Your task to perform on an android device: Search for "sony triple a" on ebay.com, select the first entry, and add it to the cart. Image 0: 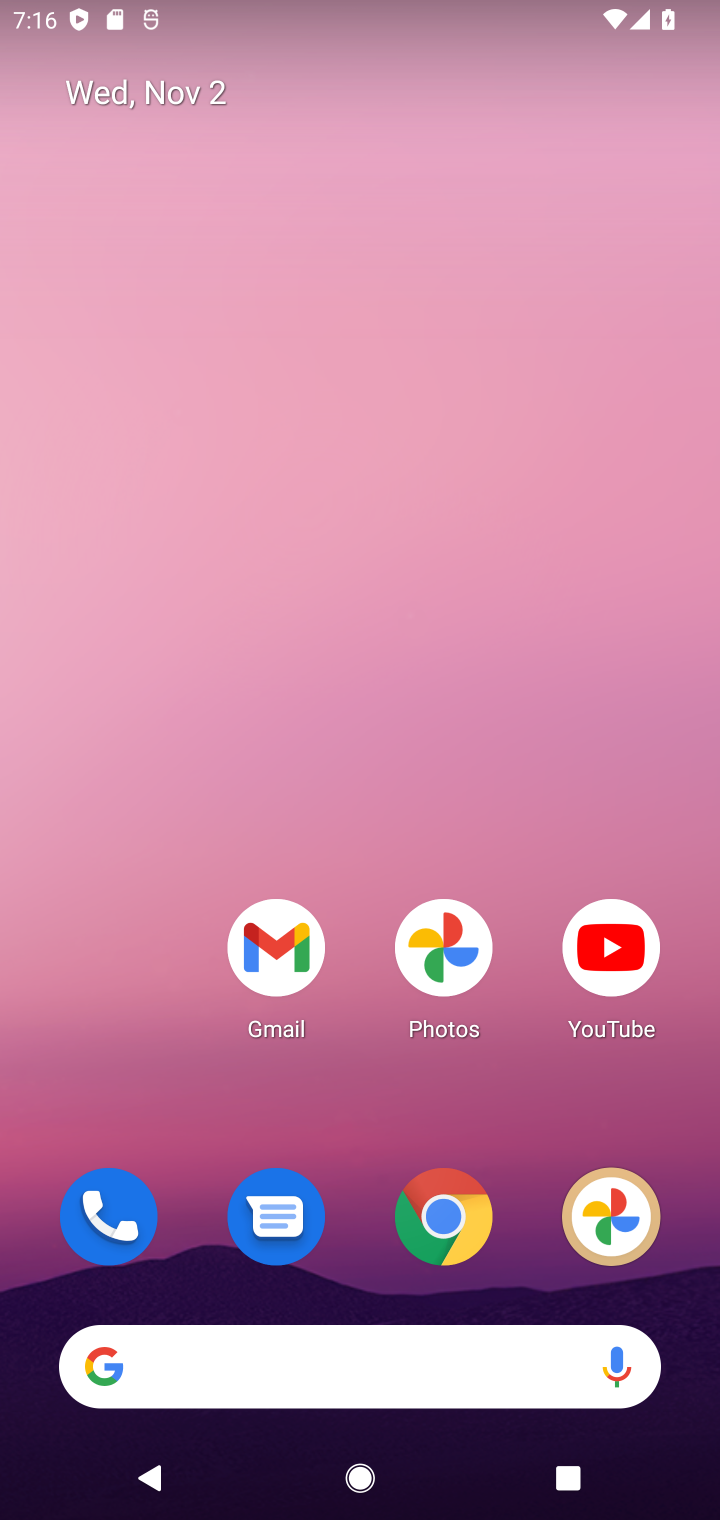
Step 0: click (440, 1249)
Your task to perform on an android device: Search for "sony triple a" on ebay.com, select the first entry, and add it to the cart. Image 1: 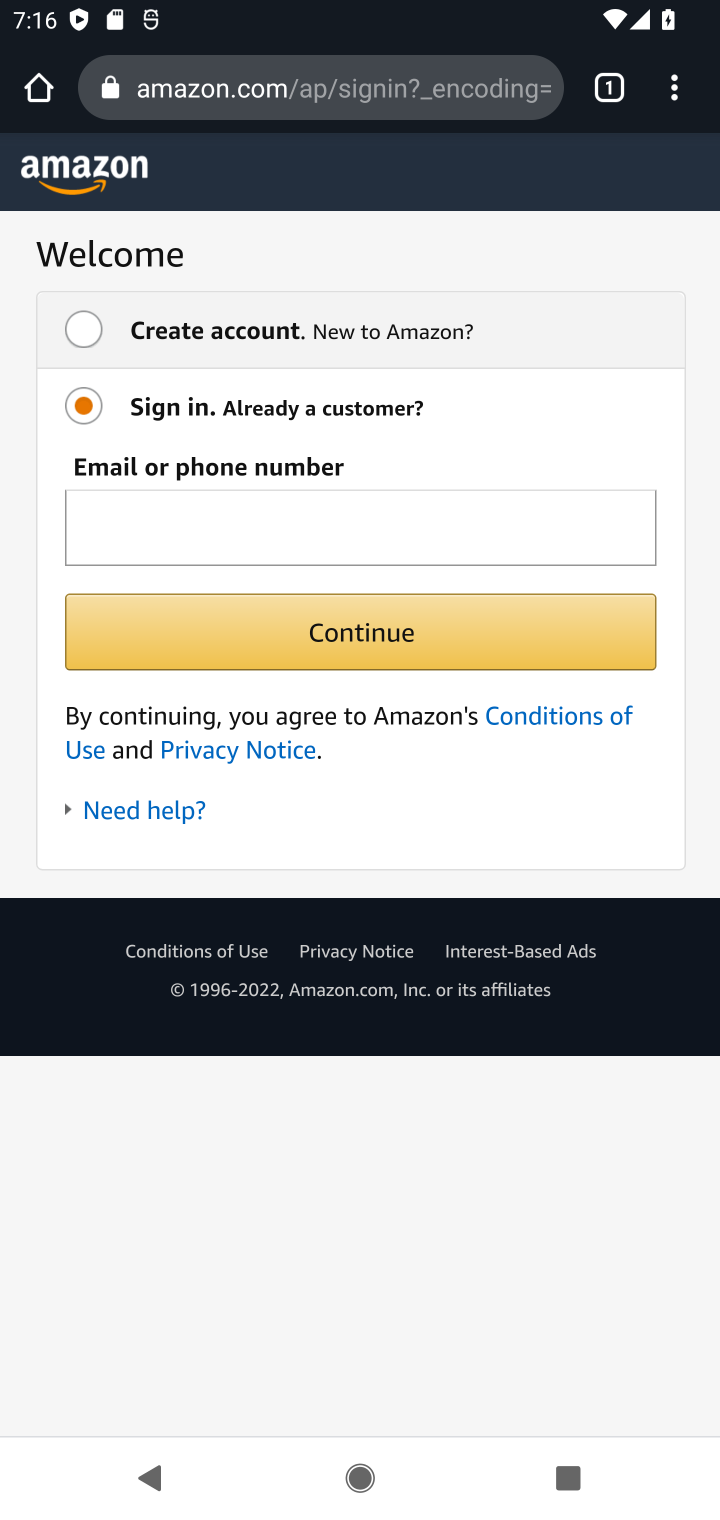
Step 1: click (328, 96)
Your task to perform on an android device: Search for "sony triple a" on ebay.com, select the first entry, and add it to the cart. Image 2: 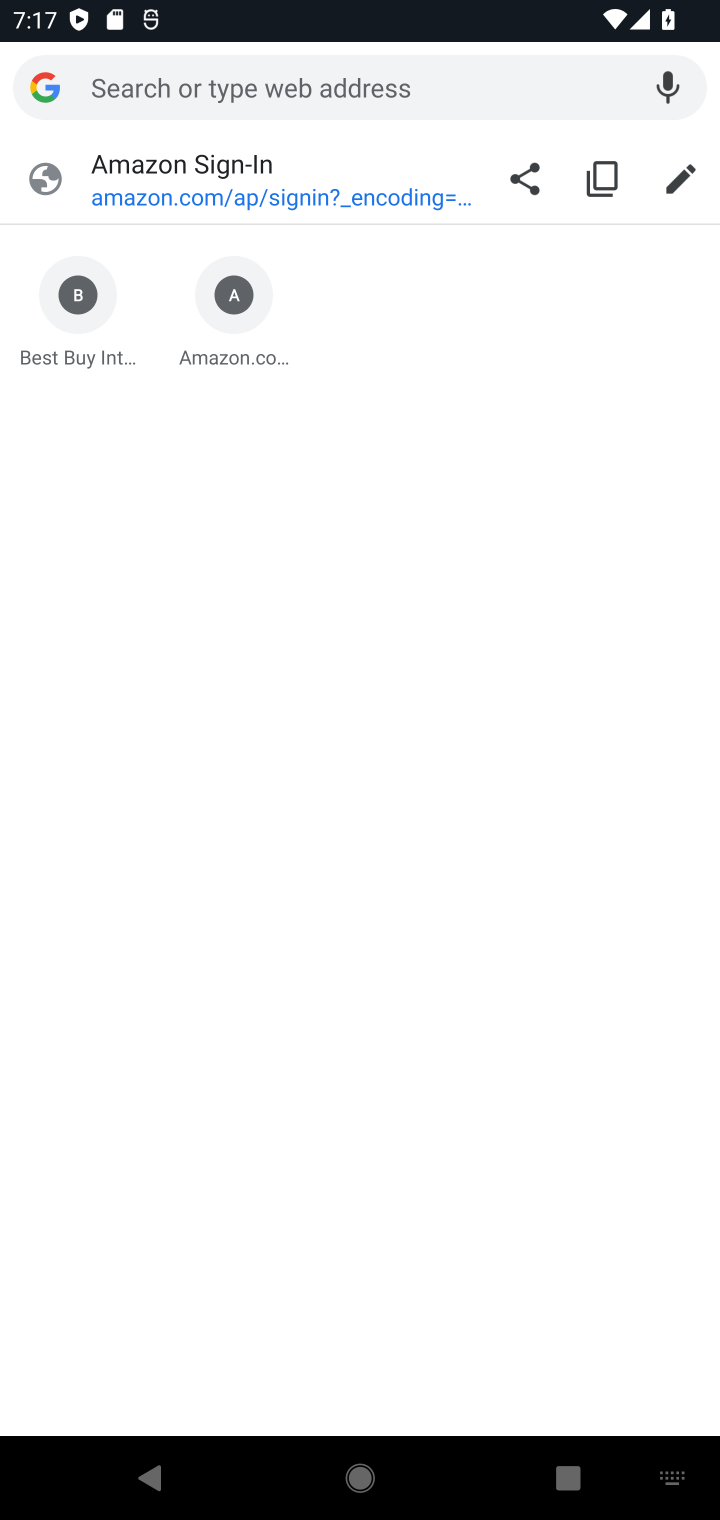
Step 2: type "ebay.com"
Your task to perform on an android device: Search for "sony triple a" on ebay.com, select the first entry, and add it to the cart. Image 3: 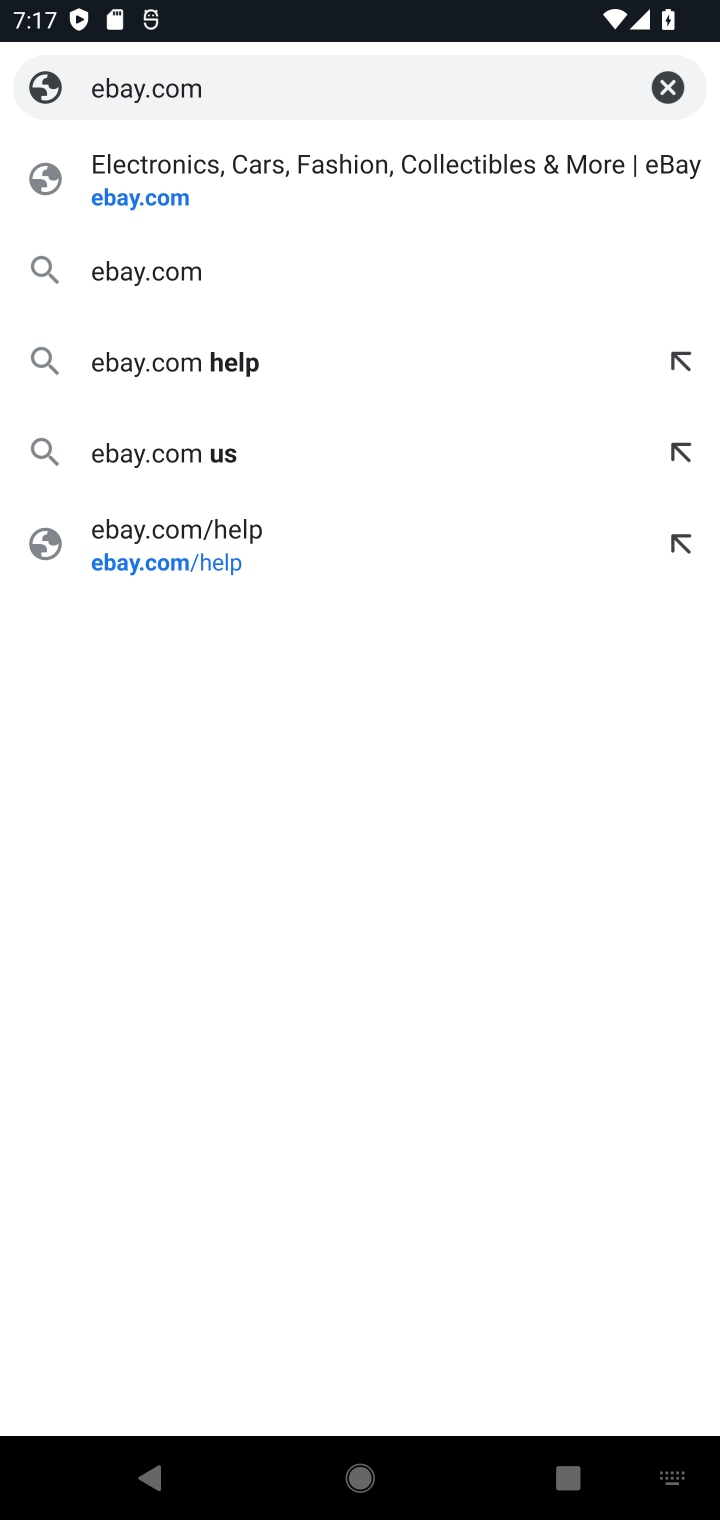
Step 3: click (574, 182)
Your task to perform on an android device: Search for "sony triple a" on ebay.com, select the first entry, and add it to the cart. Image 4: 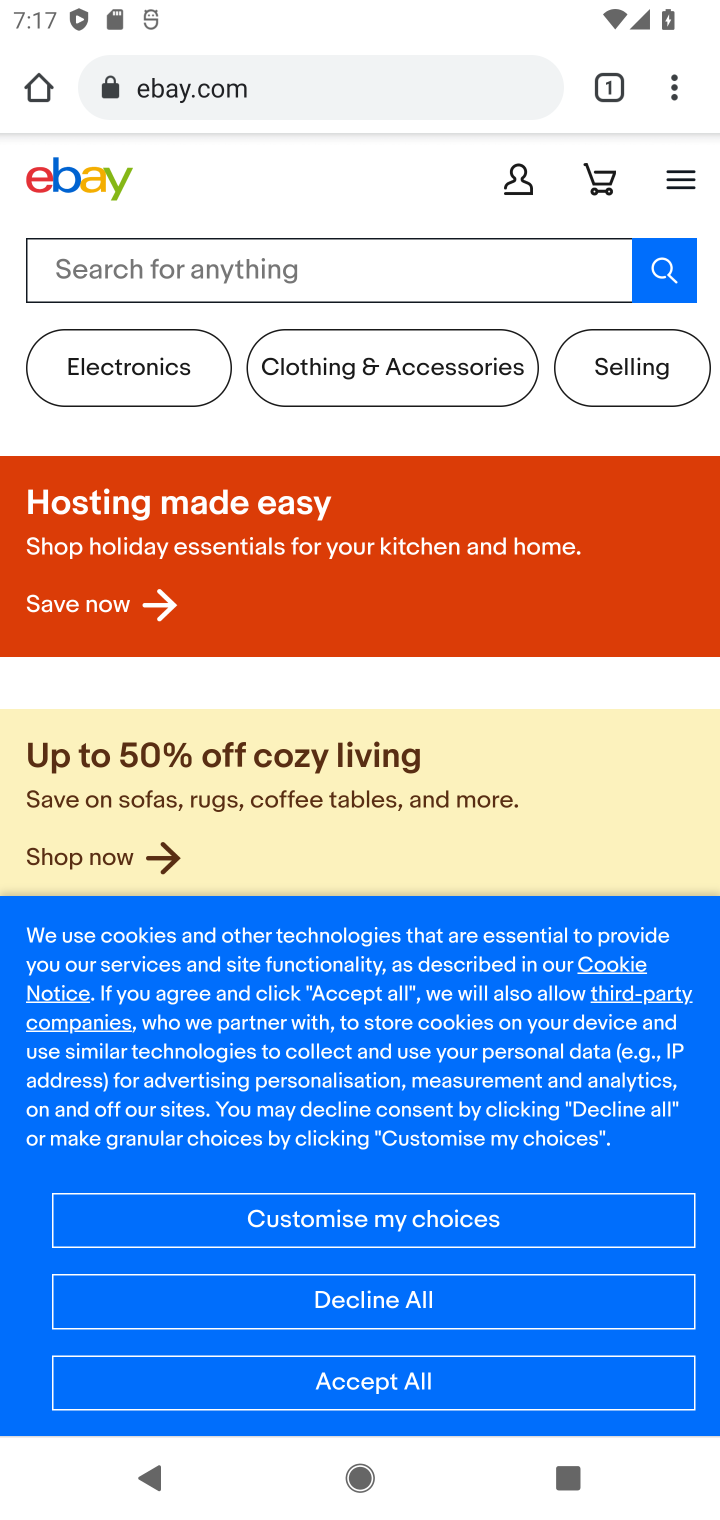
Step 4: click (368, 261)
Your task to perform on an android device: Search for "sony triple a" on ebay.com, select the first entry, and add it to the cart. Image 5: 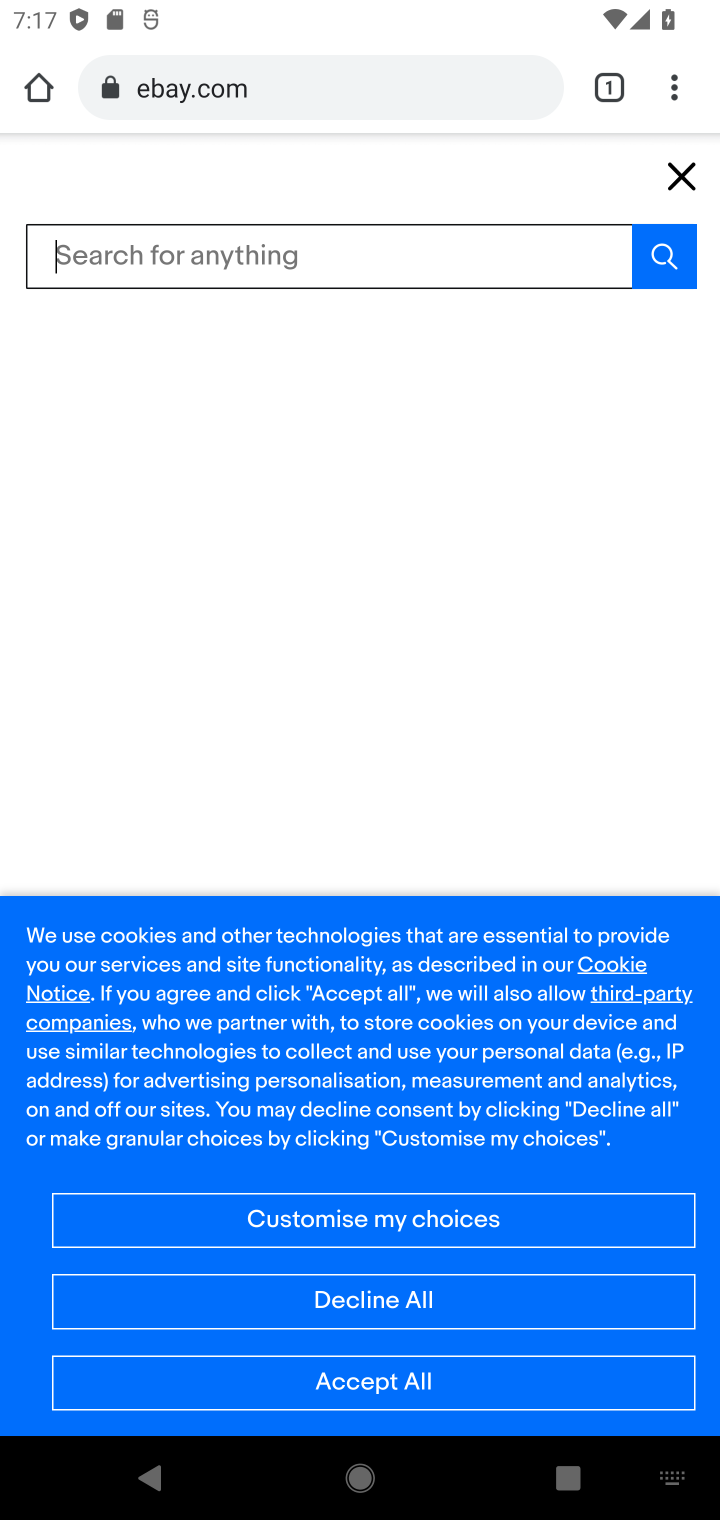
Step 5: type "sony triple a"
Your task to perform on an android device: Search for "sony triple a" on ebay.com, select the first entry, and add it to the cart. Image 6: 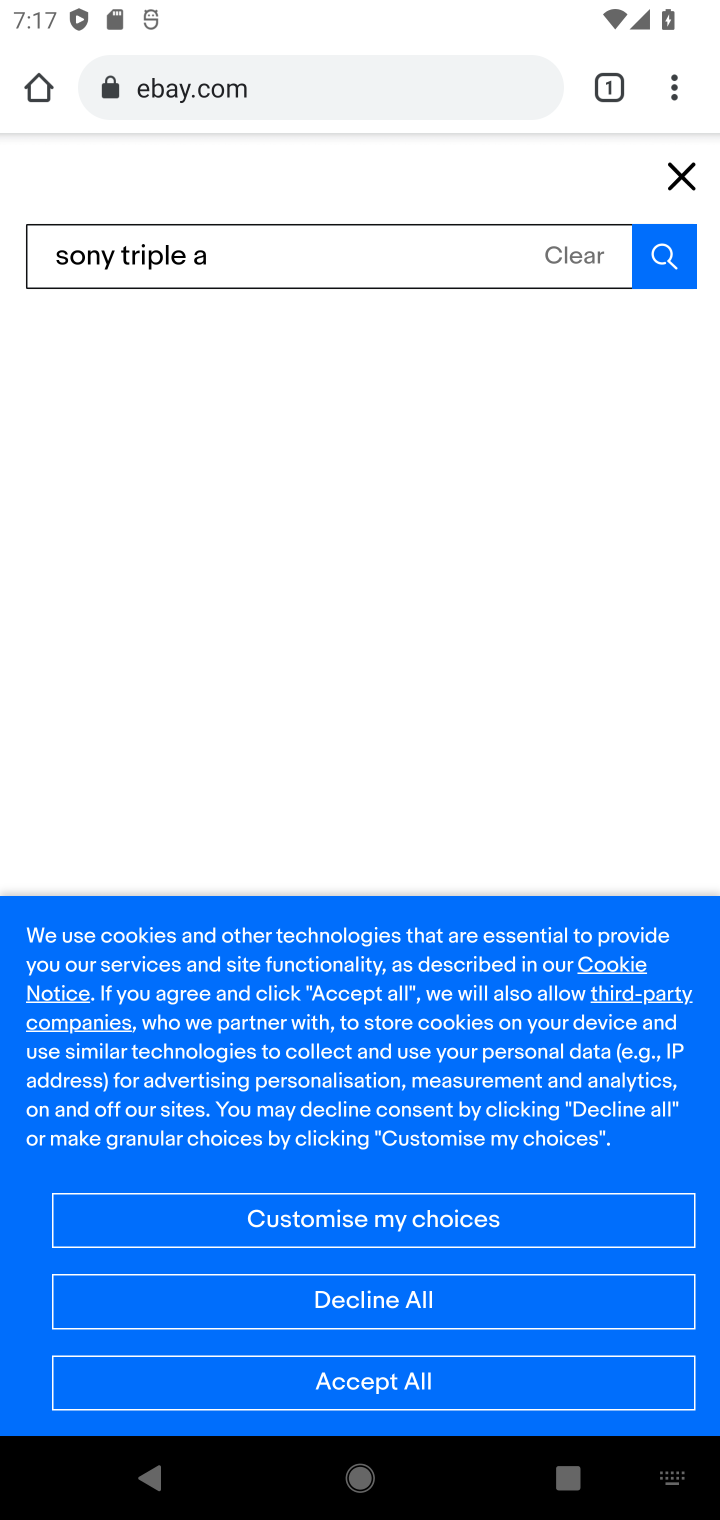
Step 6: press enter
Your task to perform on an android device: Search for "sony triple a" on ebay.com, select the first entry, and add it to the cart. Image 7: 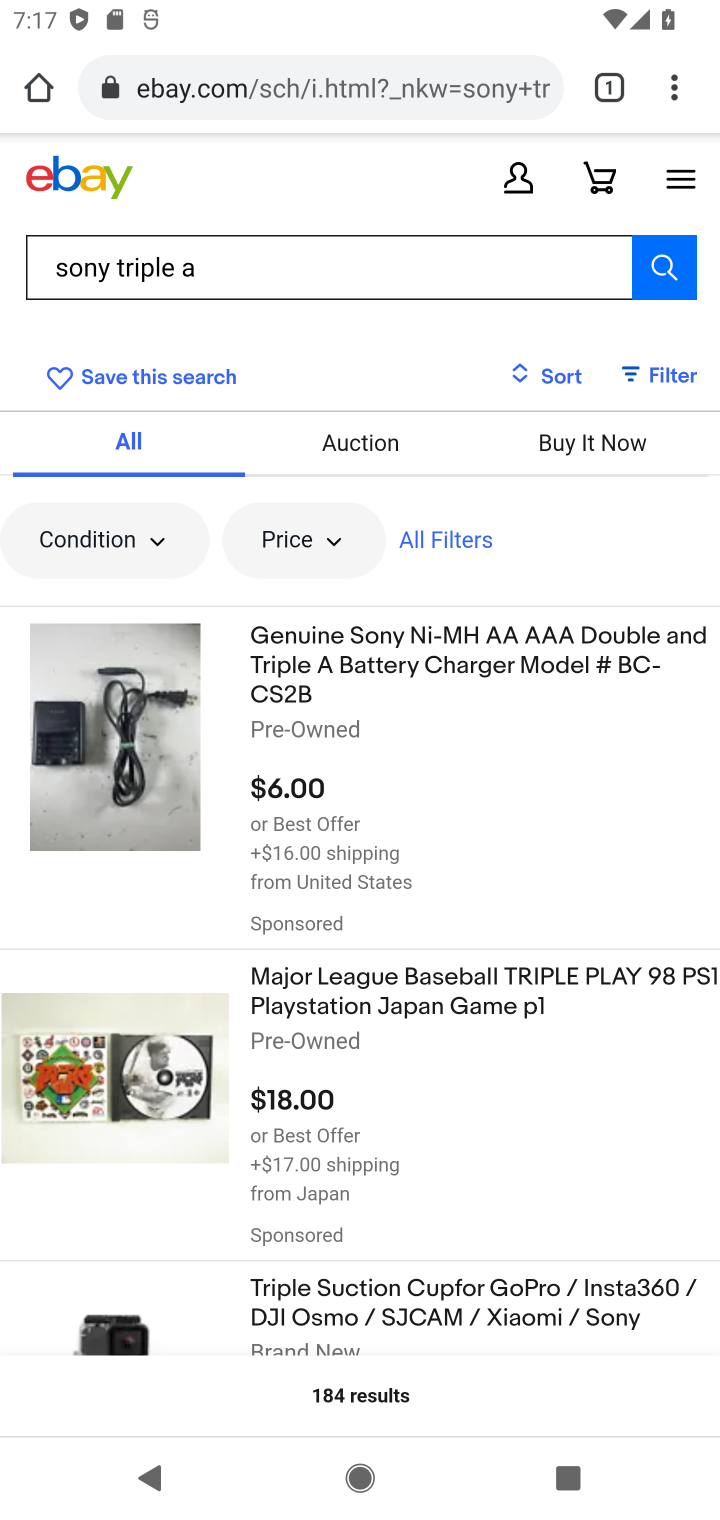
Step 7: click (125, 829)
Your task to perform on an android device: Search for "sony triple a" on ebay.com, select the first entry, and add it to the cart. Image 8: 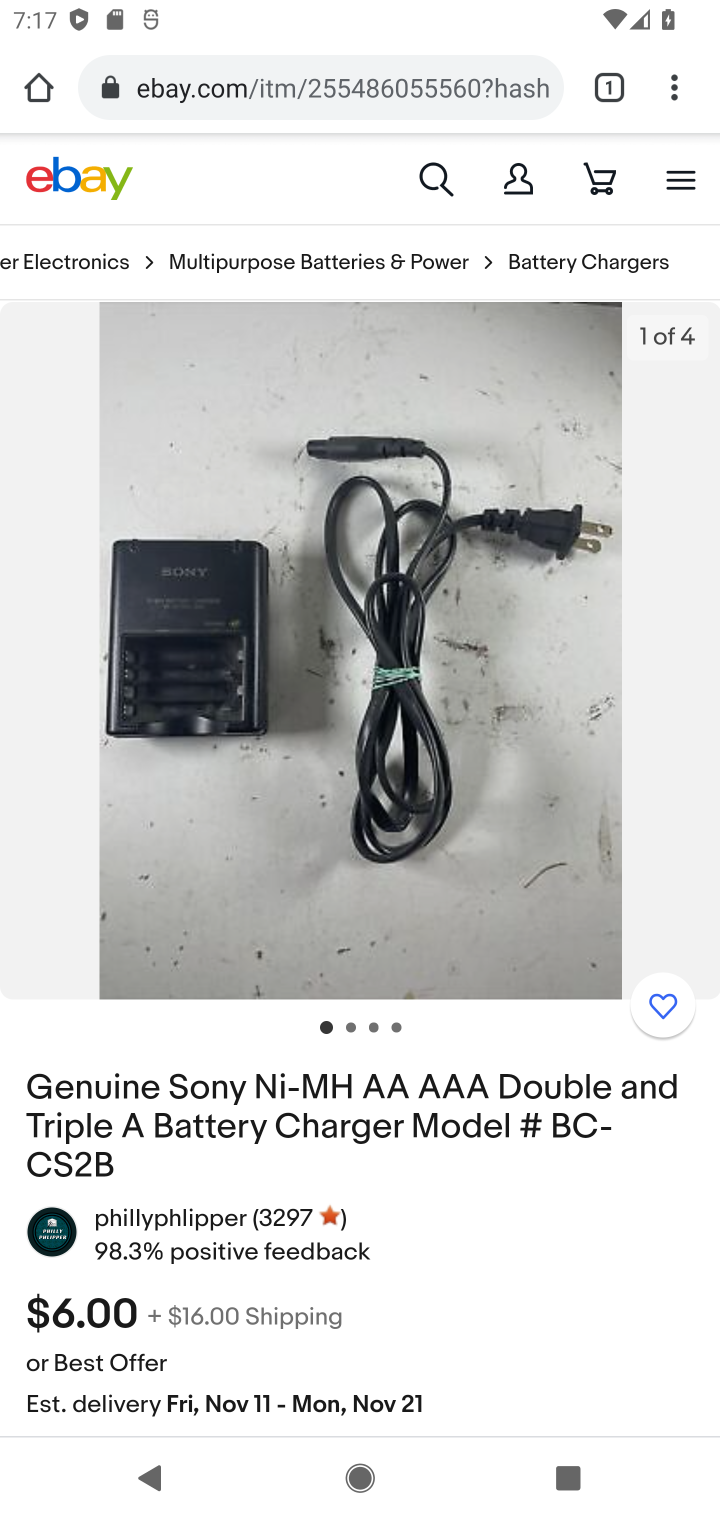
Step 8: drag from (379, 1271) to (515, 310)
Your task to perform on an android device: Search for "sony triple a" on ebay.com, select the first entry, and add it to the cart. Image 9: 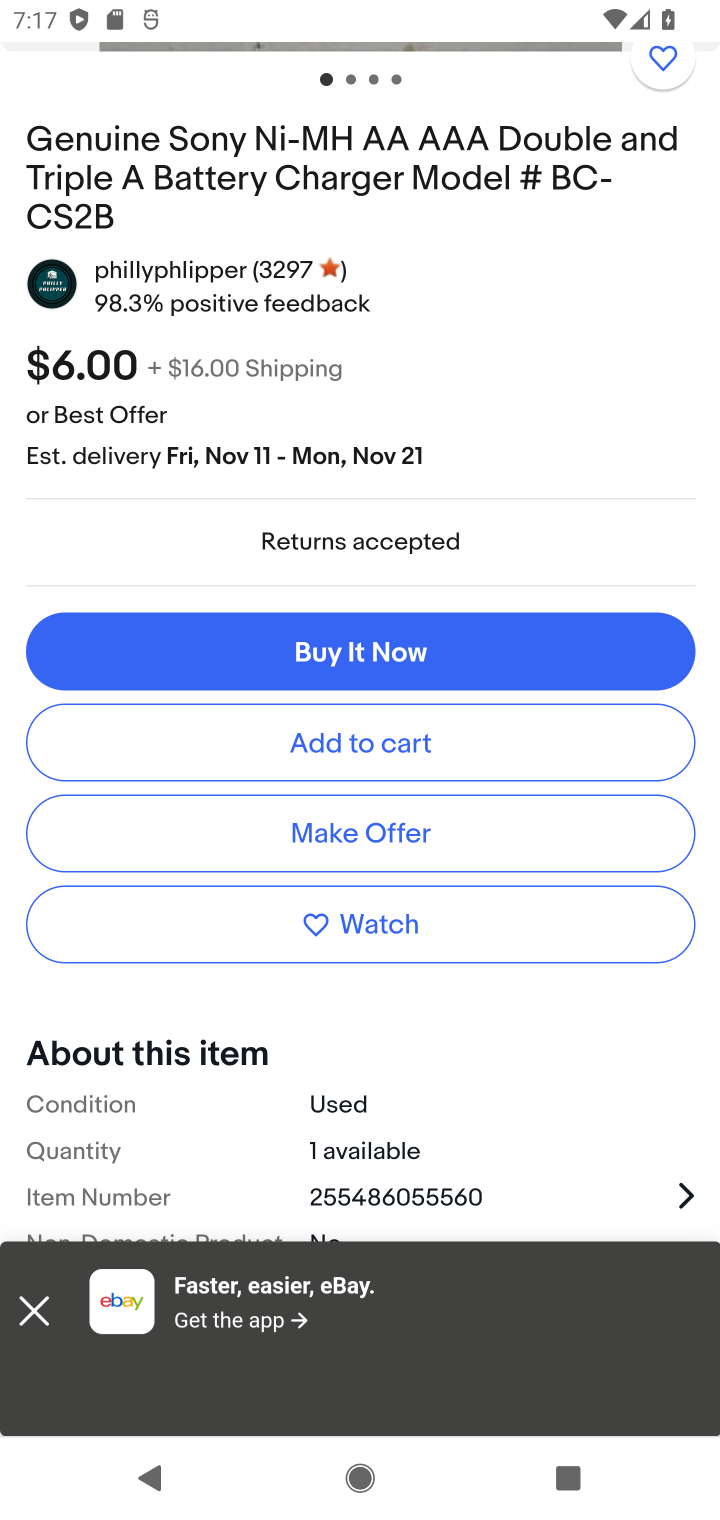
Step 9: click (368, 745)
Your task to perform on an android device: Search for "sony triple a" on ebay.com, select the first entry, and add it to the cart. Image 10: 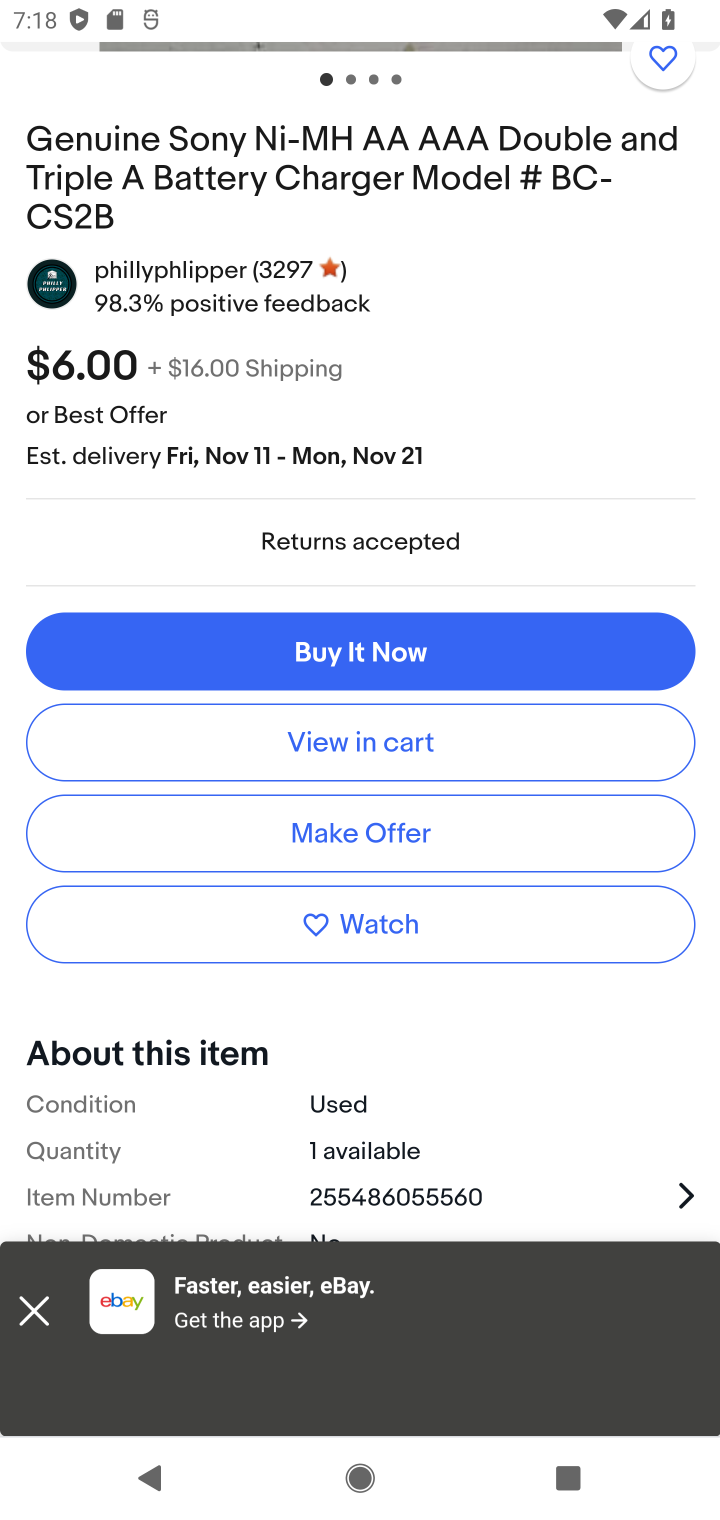
Step 10: task complete